Your task to perform on an android device: toggle notifications settings in the gmail app Image 0: 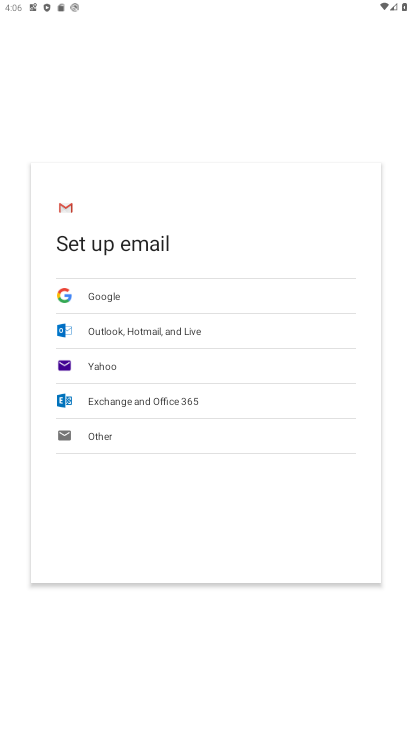
Step 0: press home button
Your task to perform on an android device: toggle notifications settings in the gmail app Image 1: 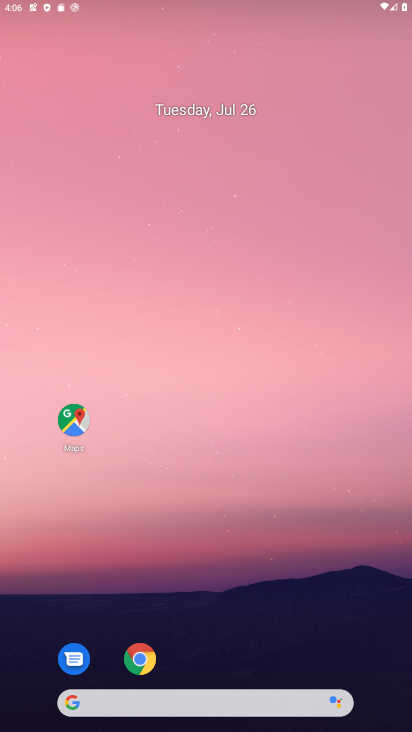
Step 1: drag from (299, 611) to (375, 84)
Your task to perform on an android device: toggle notifications settings in the gmail app Image 2: 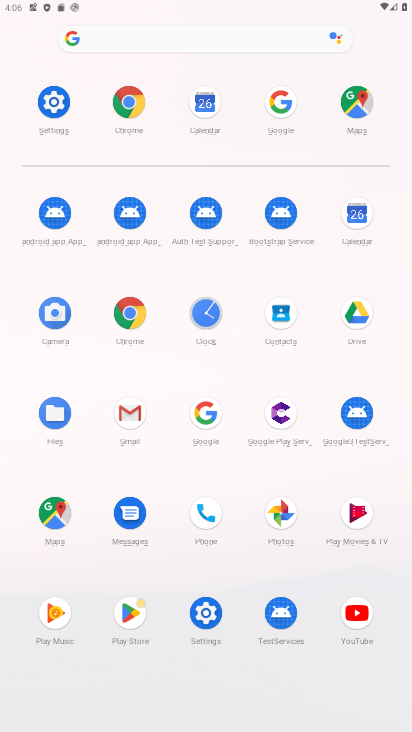
Step 2: click (126, 414)
Your task to perform on an android device: toggle notifications settings in the gmail app Image 3: 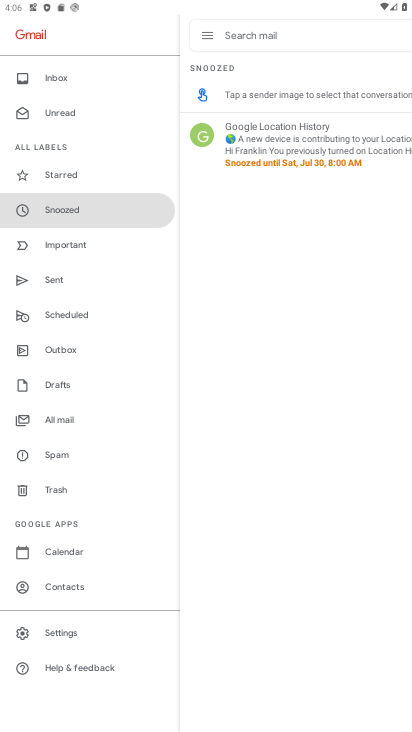
Step 3: click (62, 638)
Your task to perform on an android device: toggle notifications settings in the gmail app Image 4: 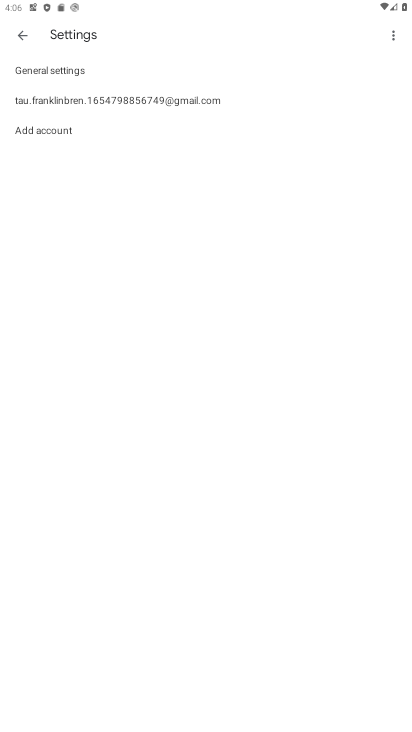
Step 4: click (81, 88)
Your task to perform on an android device: toggle notifications settings in the gmail app Image 5: 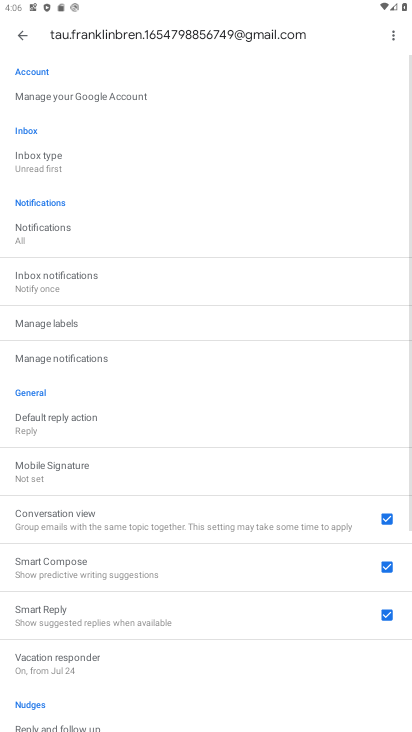
Step 5: click (45, 234)
Your task to perform on an android device: toggle notifications settings in the gmail app Image 6: 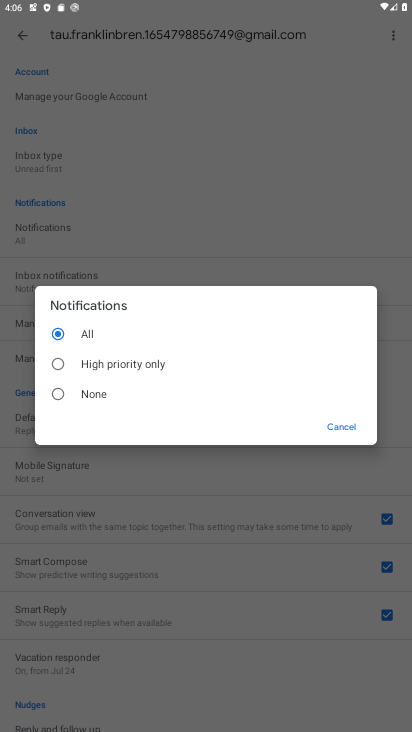
Step 6: click (110, 364)
Your task to perform on an android device: toggle notifications settings in the gmail app Image 7: 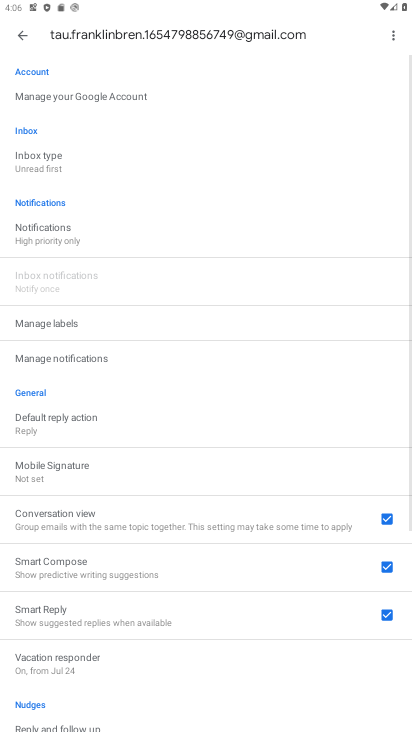
Step 7: task complete